Your task to perform on an android device: Open Android settings Image 0: 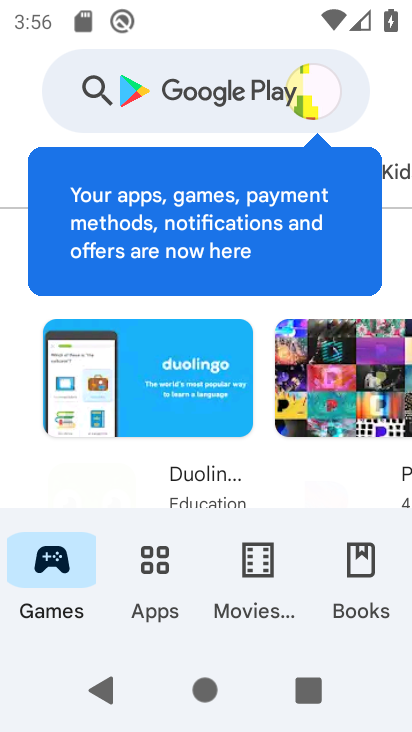
Step 0: press home button
Your task to perform on an android device: Open Android settings Image 1: 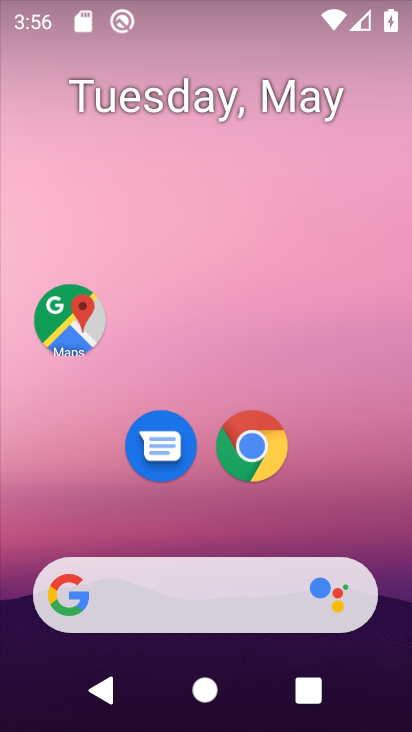
Step 1: drag from (91, 506) to (166, 132)
Your task to perform on an android device: Open Android settings Image 2: 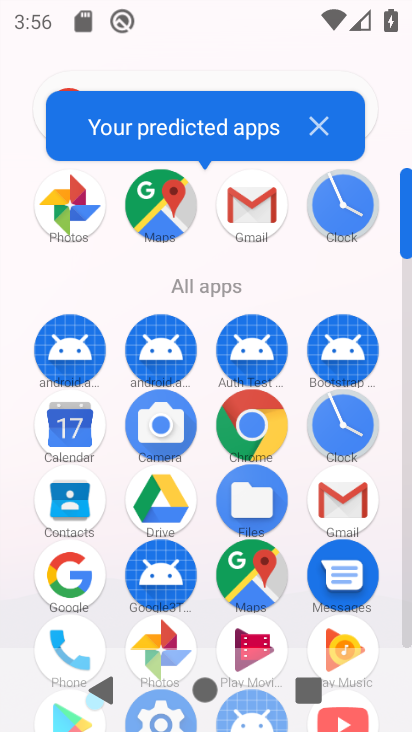
Step 2: drag from (234, 623) to (267, 368)
Your task to perform on an android device: Open Android settings Image 3: 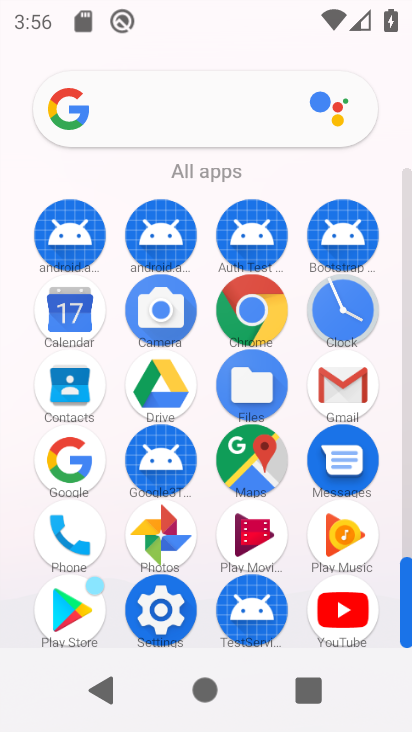
Step 3: click (169, 620)
Your task to perform on an android device: Open Android settings Image 4: 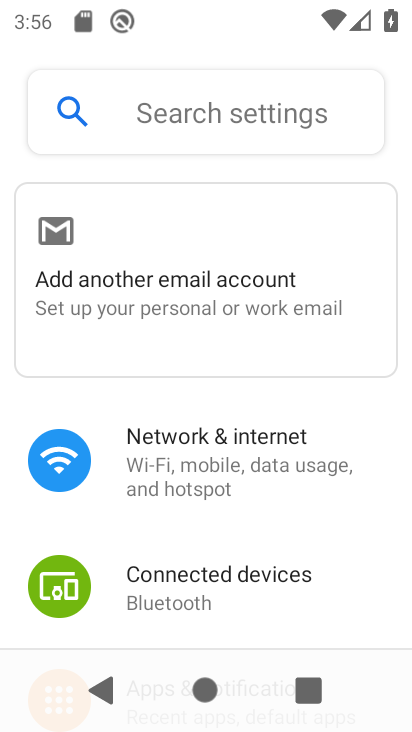
Step 4: task complete